Your task to perform on an android device: turn notification dots on Image 0: 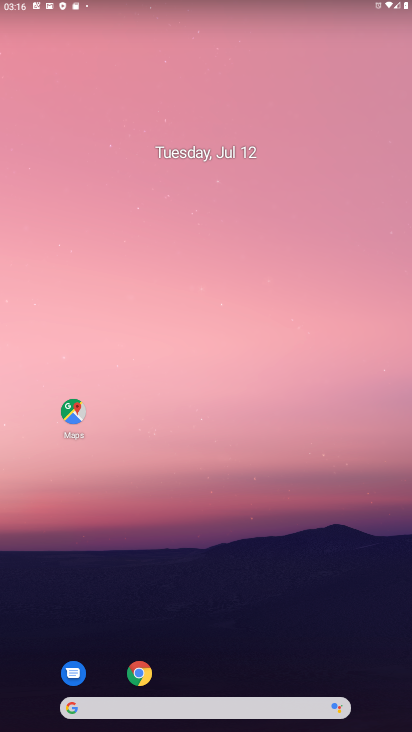
Step 0: press home button
Your task to perform on an android device: turn notification dots on Image 1: 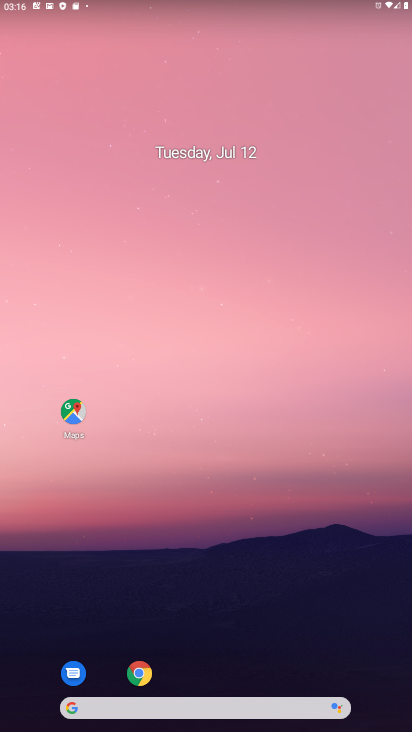
Step 1: drag from (233, 634) to (269, 110)
Your task to perform on an android device: turn notification dots on Image 2: 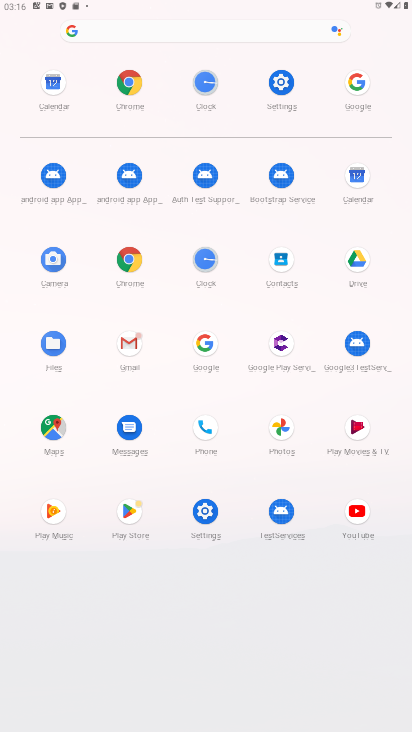
Step 2: click (275, 77)
Your task to perform on an android device: turn notification dots on Image 3: 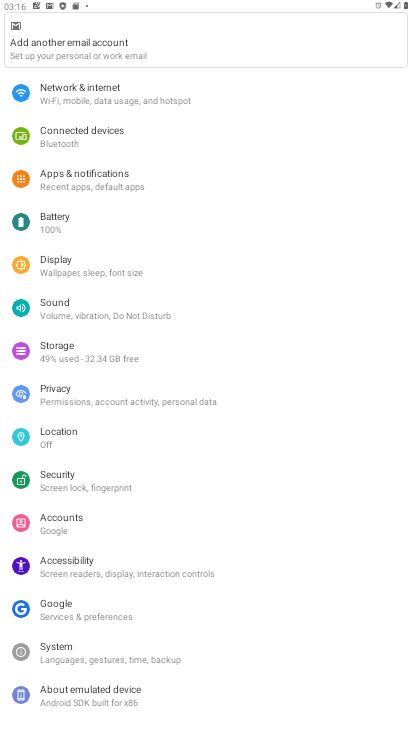
Step 3: click (102, 170)
Your task to perform on an android device: turn notification dots on Image 4: 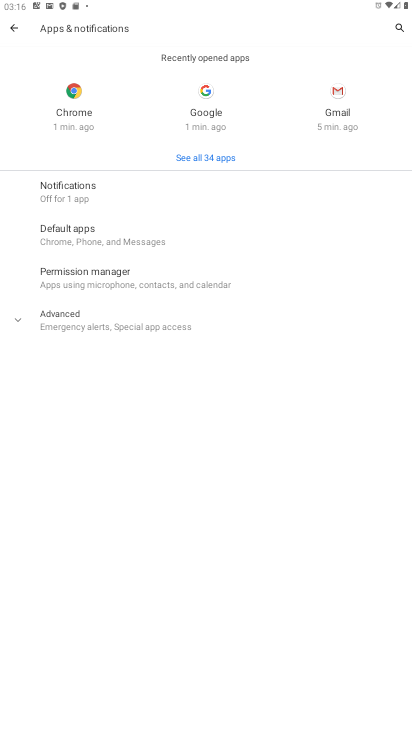
Step 4: click (17, 318)
Your task to perform on an android device: turn notification dots on Image 5: 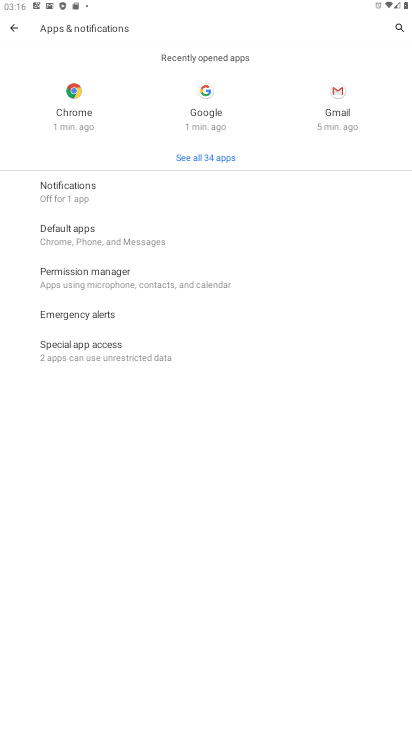
Step 5: click (69, 188)
Your task to perform on an android device: turn notification dots on Image 6: 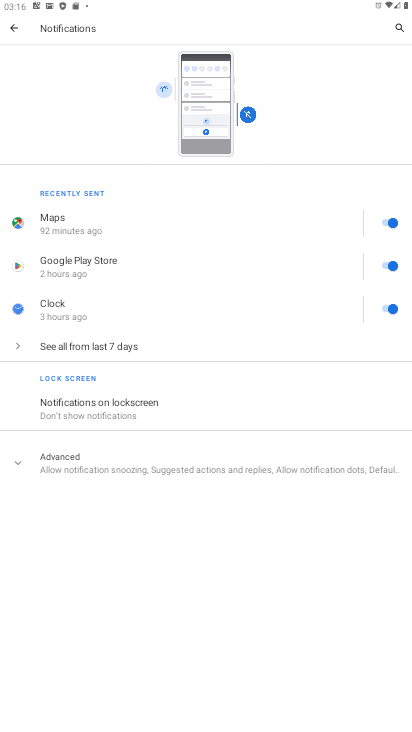
Step 6: click (17, 460)
Your task to perform on an android device: turn notification dots on Image 7: 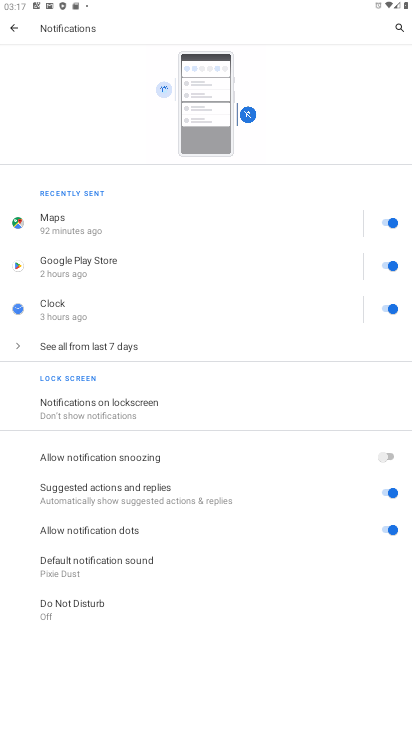
Step 7: task complete